Your task to perform on an android device: Open Chrome and go to settings Image 0: 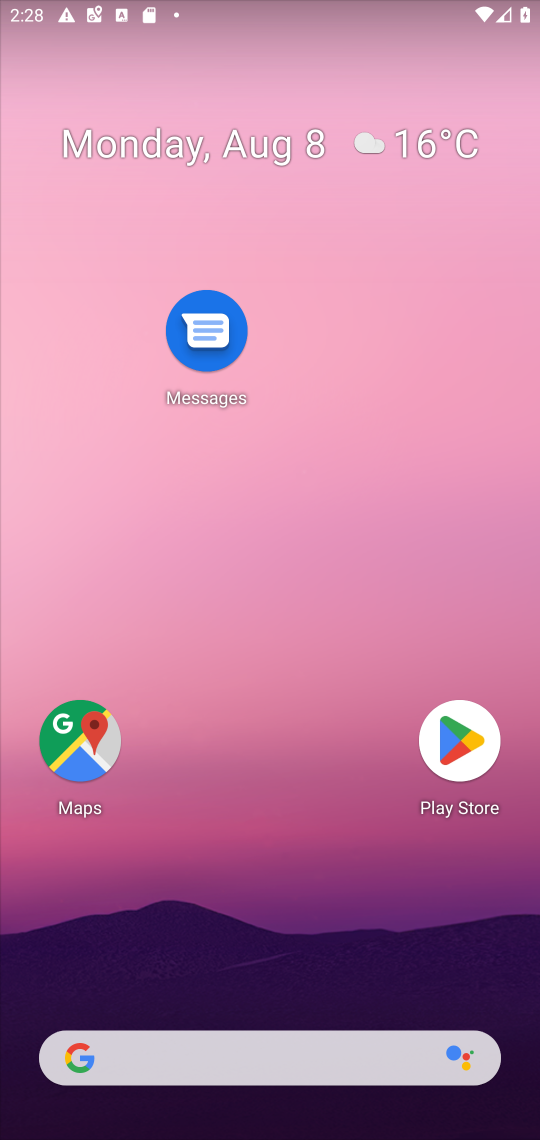
Step 0: drag from (255, 1049) to (103, 27)
Your task to perform on an android device: Open Chrome and go to settings Image 1: 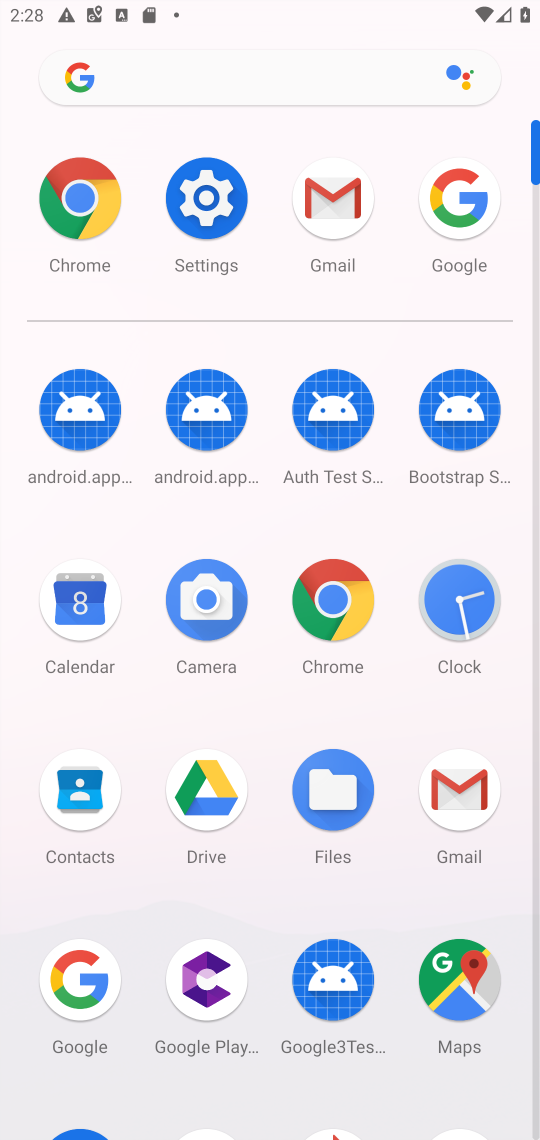
Step 1: click (328, 605)
Your task to perform on an android device: Open Chrome and go to settings Image 2: 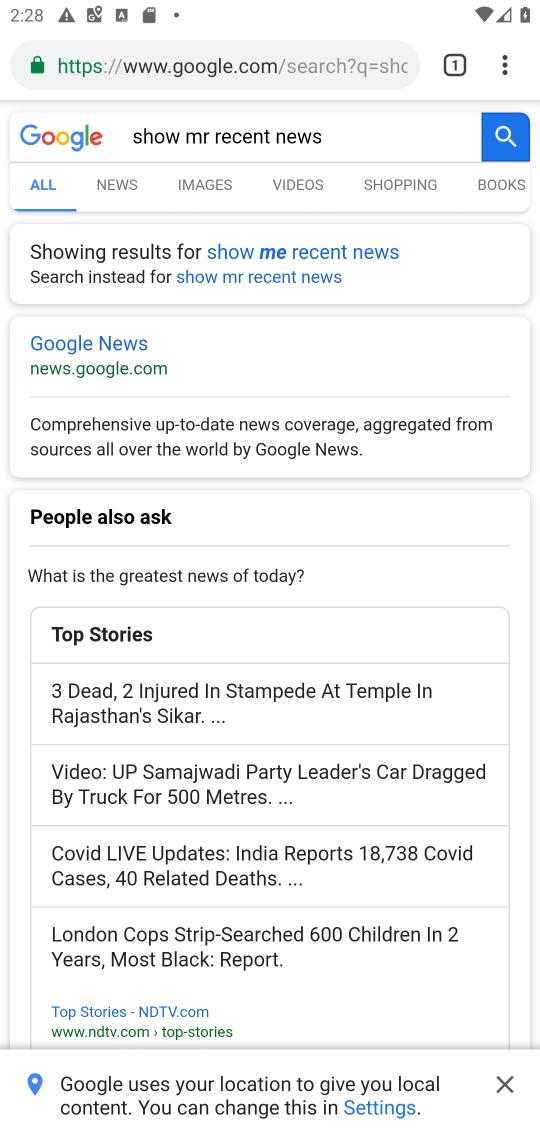
Step 2: click (509, 57)
Your task to perform on an android device: Open Chrome and go to settings Image 3: 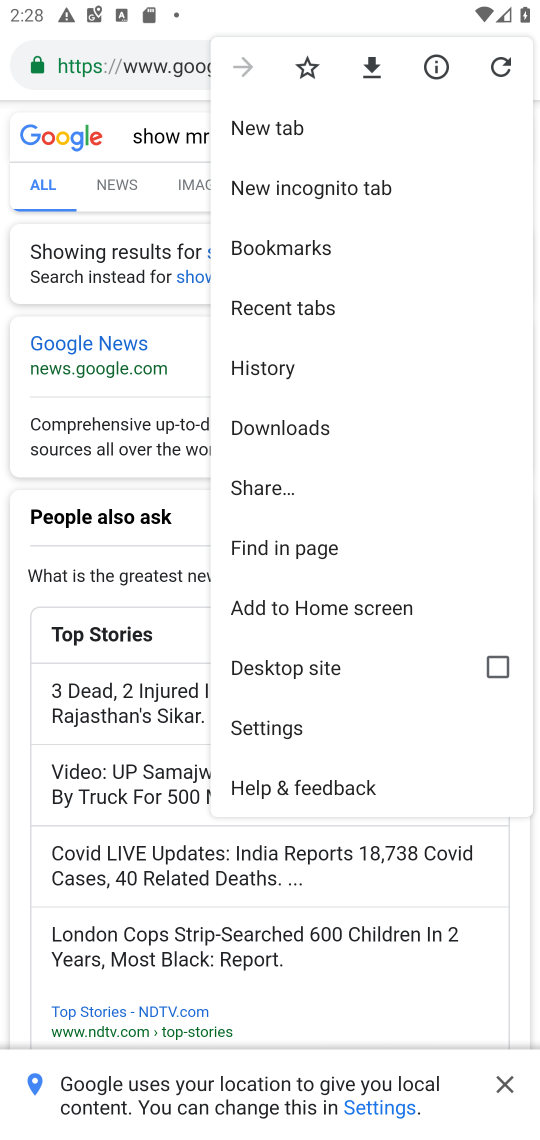
Step 3: click (329, 723)
Your task to perform on an android device: Open Chrome and go to settings Image 4: 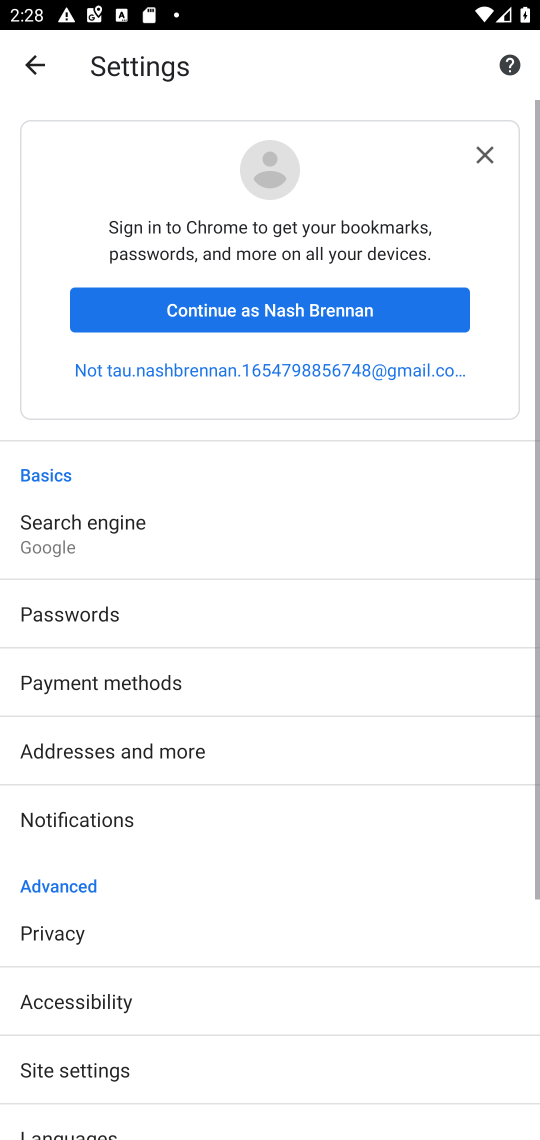
Step 4: task complete